Your task to perform on an android device: turn notification dots off Image 0: 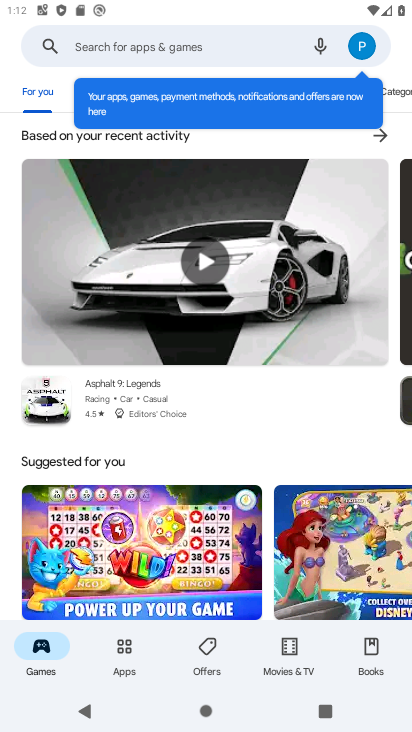
Step 0: press home button
Your task to perform on an android device: turn notification dots off Image 1: 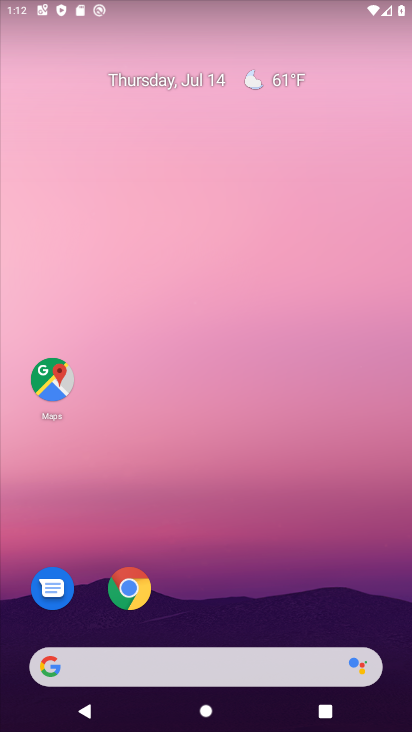
Step 1: drag from (196, 586) to (245, 97)
Your task to perform on an android device: turn notification dots off Image 2: 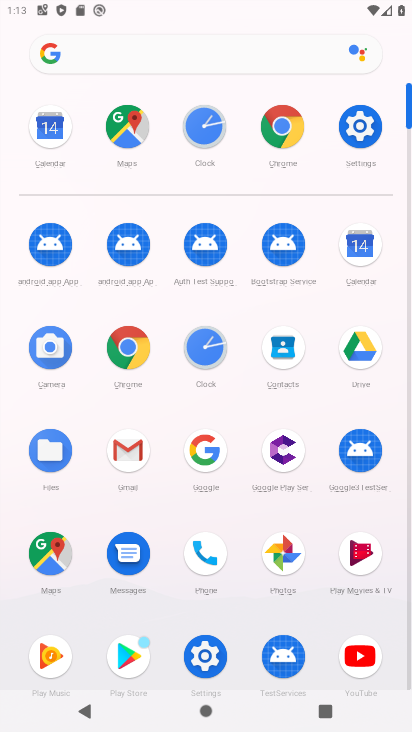
Step 2: click (375, 115)
Your task to perform on an android device: turn notification dots off Image 3: 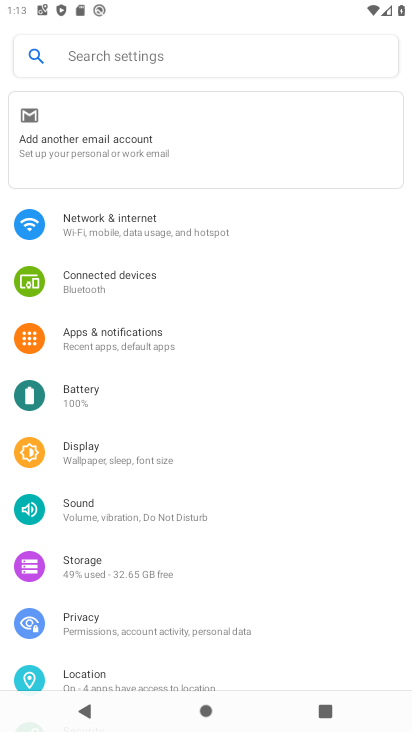
Step 3: click (132, 44)
Your task to perform on an android device: turn notification dots off Image 4: 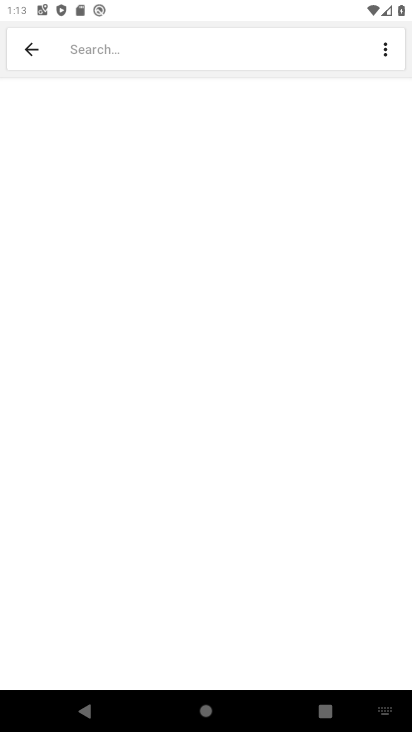
Step 4: type "notification dots "
Your task to perform on an android device: turn notification dots off Image 5: 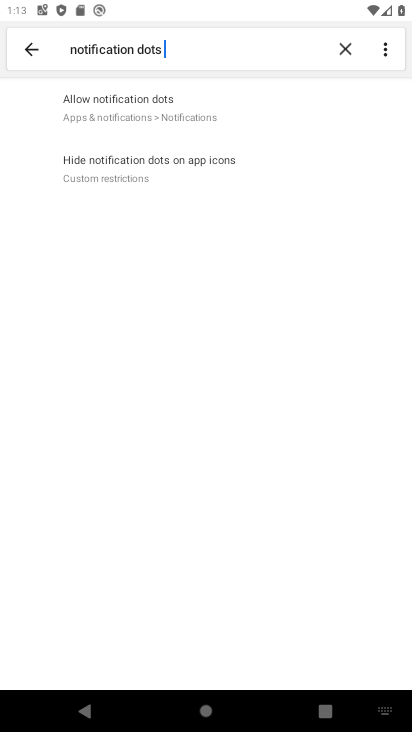
Step 5: click (154, 101)
Your task to perform on an android device: turn notification dots off Image 6: 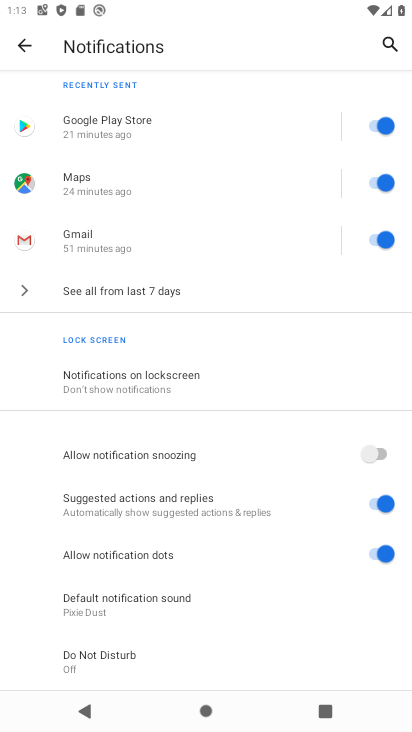
Step 6: click (397, 551)
Your task to perform on an android device: turn notification dots off Image 7: 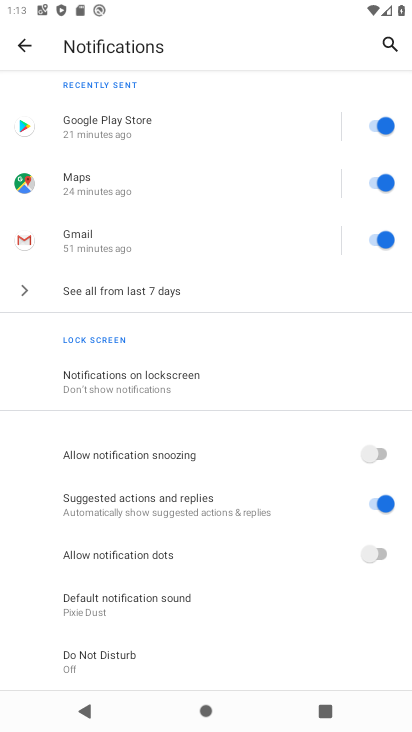
Step 7: task complete